Your task to perform on an android device: toggle sleep mode Image 0: 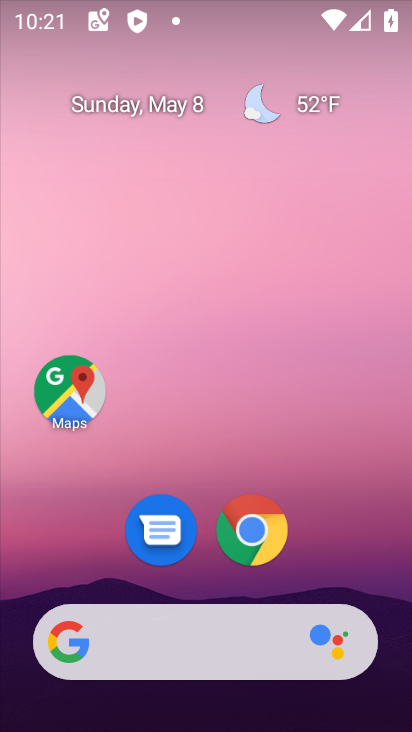
Step 0: drag from (380, 563) to (349, 50)
Your task to perform on an android device: toggle sleep mode Image 1: 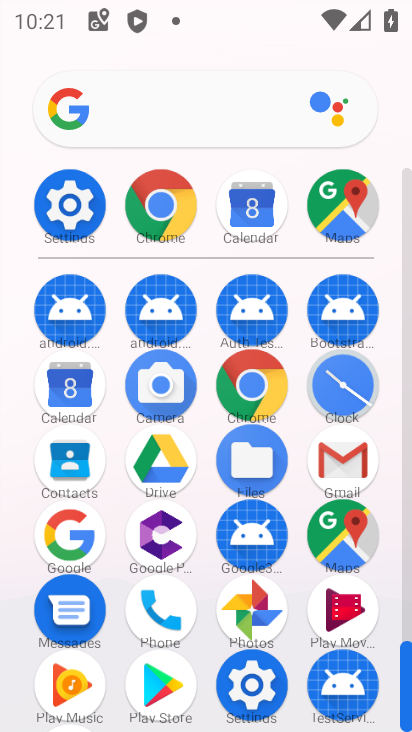
Step 1: click (67, 196)
Your task to perform on an android device: toggle sleep mode Image 2: 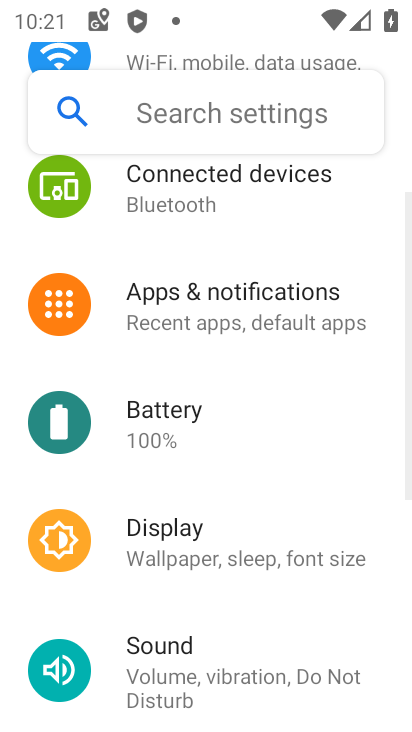
Step 2: click (203, 112)
Your task to perform on an android device: toggle sleep mode Image 3: 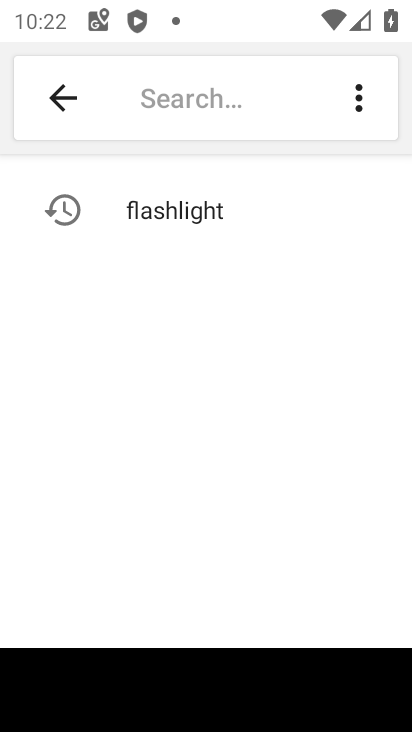
Step 3: type "sleep mode"
Your task to perform on an android device: toggle sleep mode Image 4: 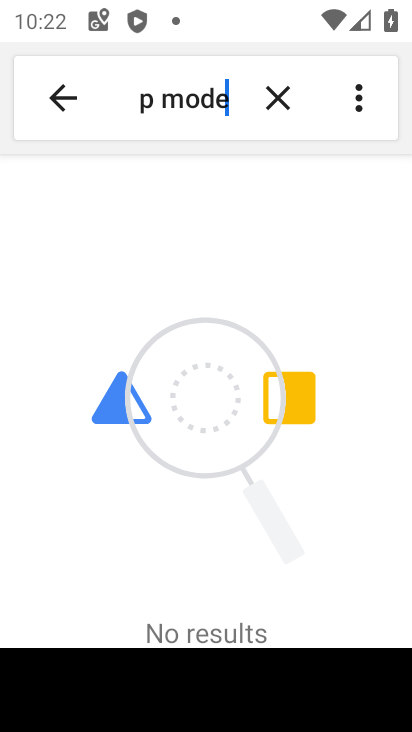
Step 4: task complete